Your task to perform on an android device: clear history in the chrome app Image 0: 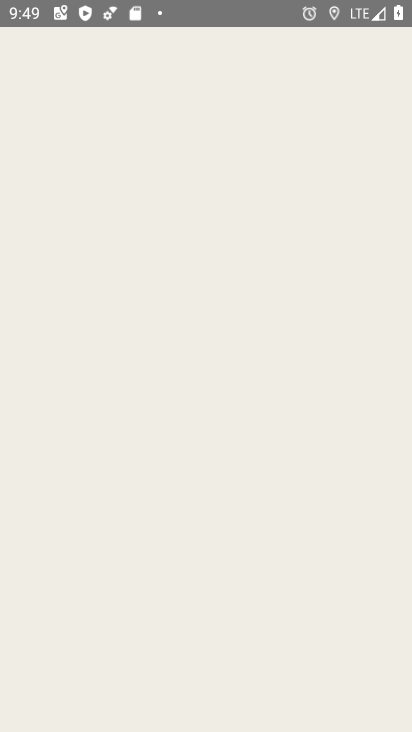
Step 0: press home button
Your task to perform on an android device: clear history in the chrome app Image 1: 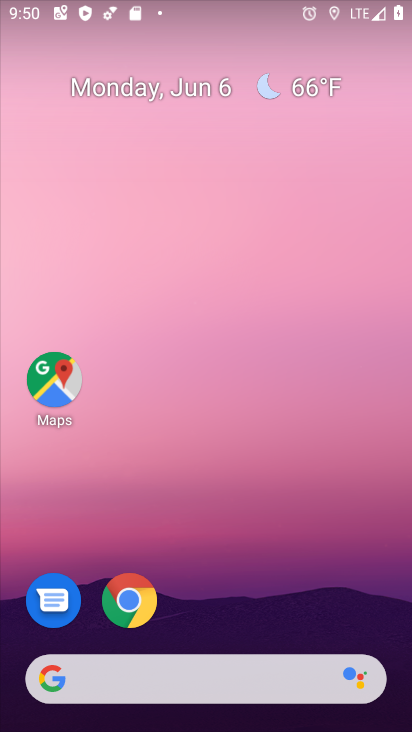
Step 1: click (130, 596)
Your task to perform on an android device: clear history in the chrome app Image 2: 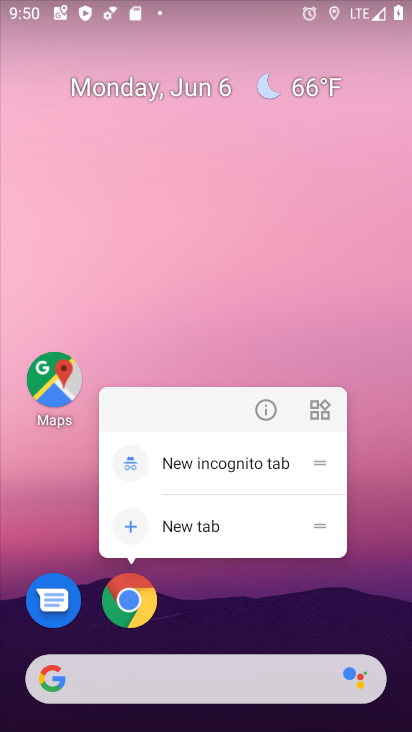
Step 2: click (135, 602)
Your task to perform on an android device: clear history in the chrome app Image 3: 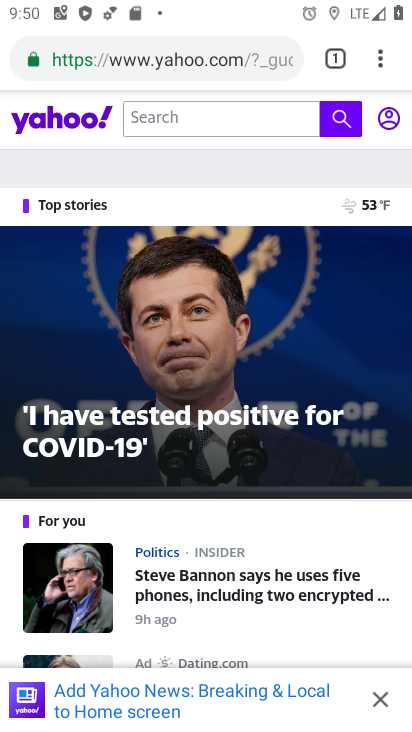
Step 3: click (383, 55)
Your task to perform on an android device: clear history in the chrome app Image 4: 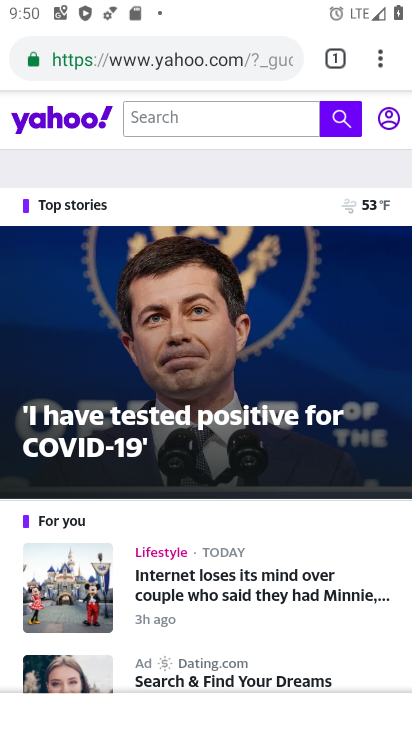
Step 4: click (382, 54)
Your task to perform on an android device: clear history in the chrome app Image 5: 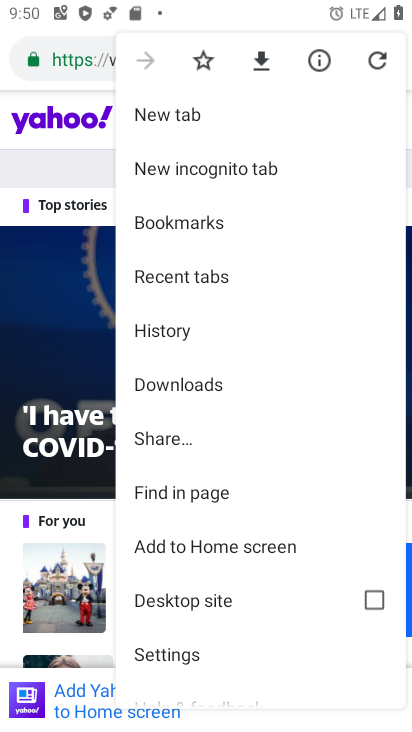
Step 5: click (142, 343)
Your task to perform on an android device: clear history in the chrome app Image 6: 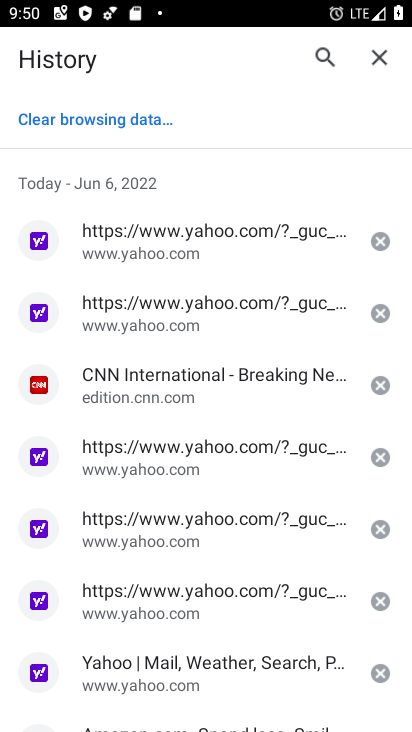
Step 6: click (105, 119)
Your task to perform on an android device: clear history in the chrome app Image 7: 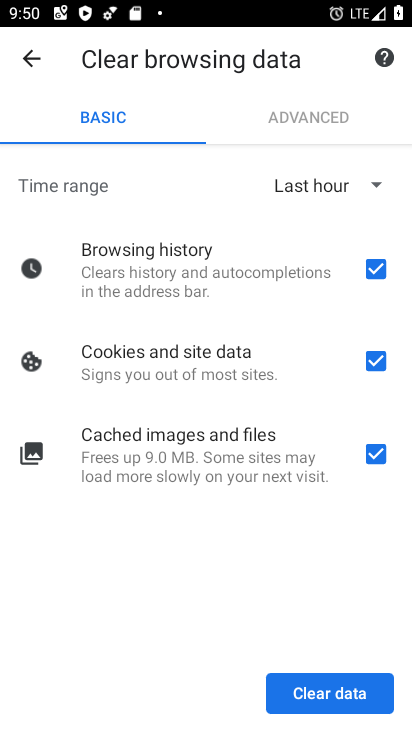
Step 7: drag from (383, 657) to (410, 728)
Your task to perform on an android device: clear history in the chrome app Image 8: 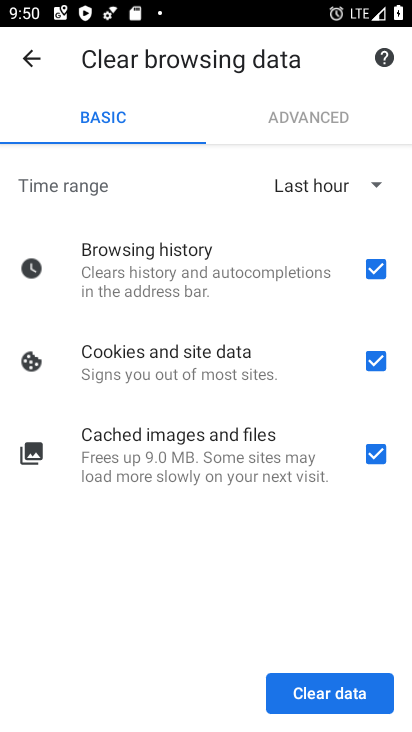
Step 8: click (346, 691)
Your task to perform on an android device: clear history in the chrome app Image 9: 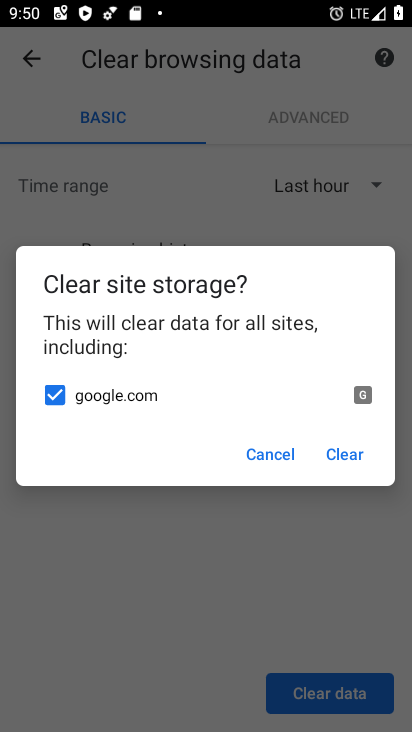
Step 9: click (331, 454)
Your task to perform on an android device: clear history in the chrome app Image 10: 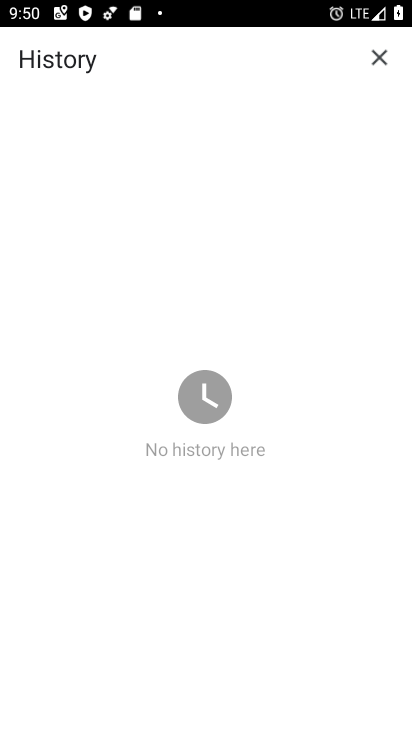
Step 10: task complete